Your task to perform on an android device: Go to Maps Image 0: 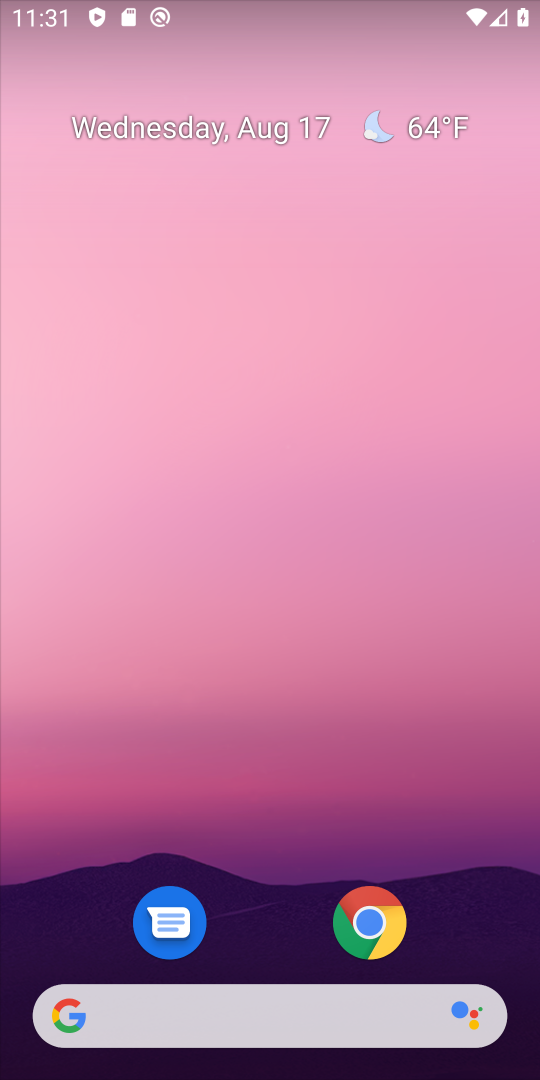
Step 0: drag from (240, 948) to (209, 43)
Your task to perform on an android device: Go to Maps Image 1: 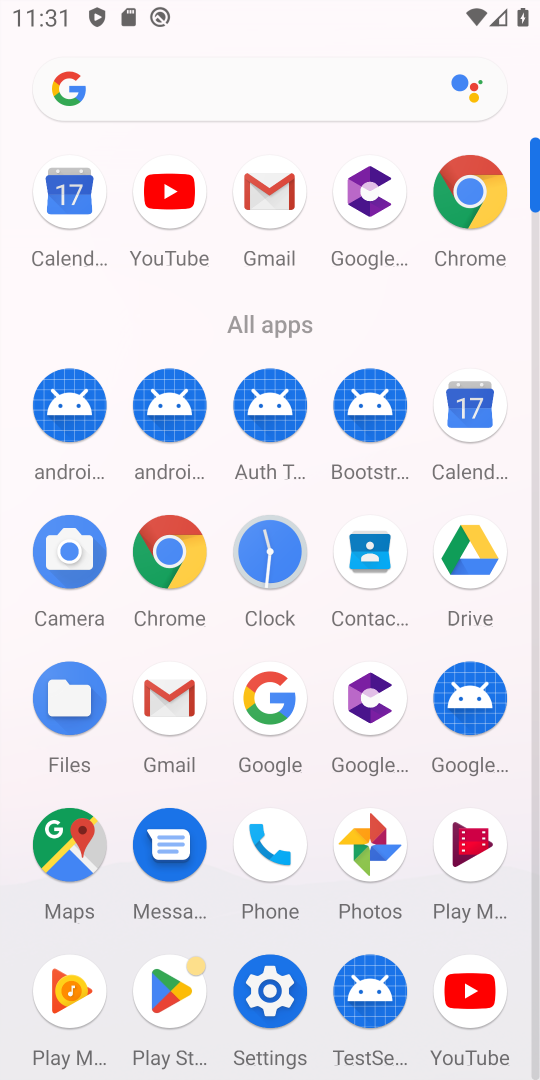
Step 1: click (67, 851)
Your task to perform on an android device: Go to Maps Image 2: 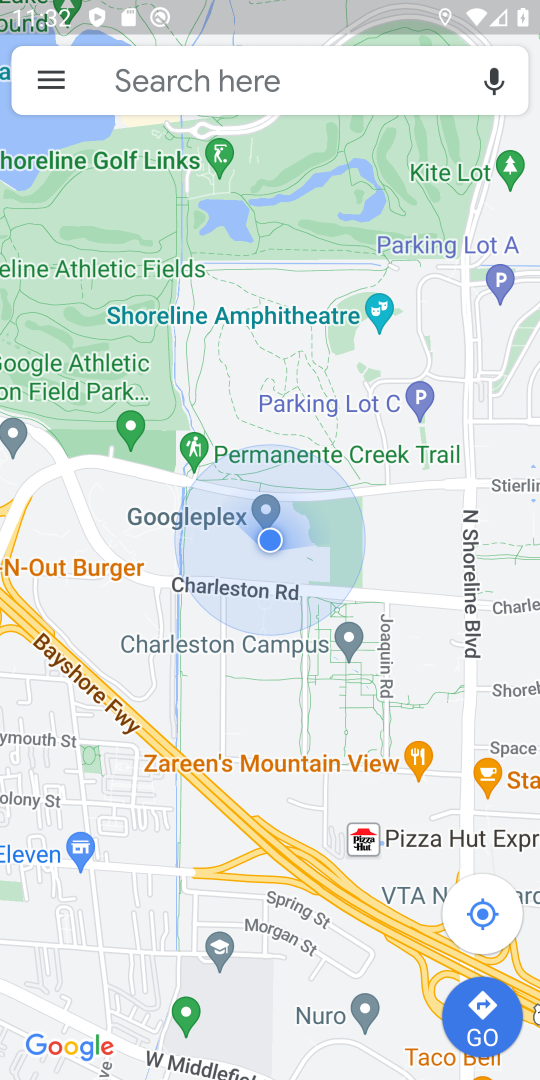
Step 2: task complete